Your task to perform on an android device: Show me popular games on the Play Store Image 0: 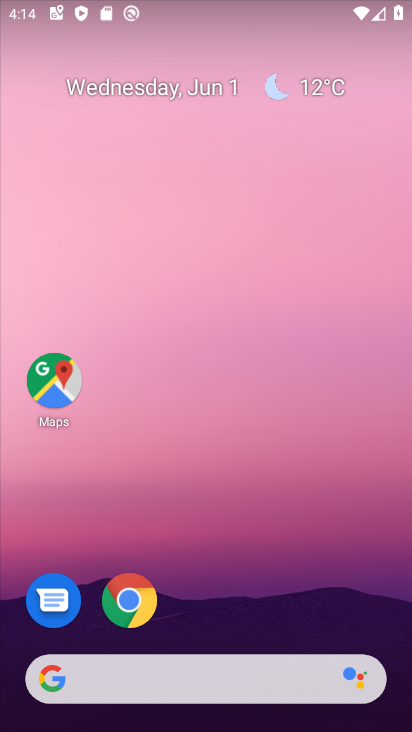
Step 0: drag from (390, 630) to (343, 150)
Your task to perform on an android device: Show me popular games on the Play Store Image 1: 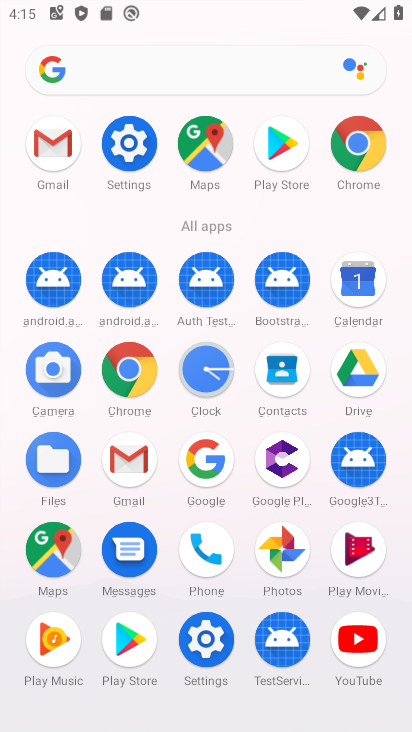
Step 1: click (133, 638)
Your task to perform on an android device: Show me popular games on the Play Store Image 2: 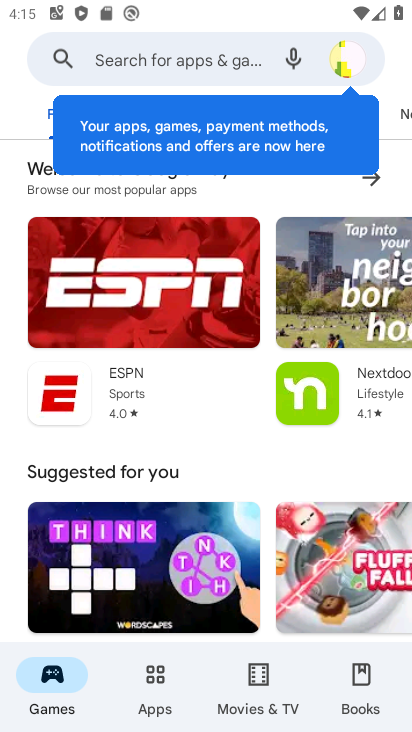
Step 2: drag from (268, 577) to (247, 139)
Your task to perform on an android device: Show me popular games on the Play Store Image 3: 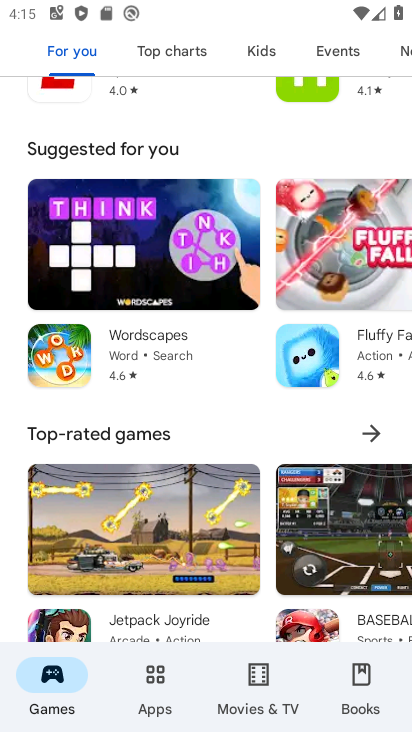
Step 3: click (246, 169)
Your task to perform on an android device: Show me popular games on the Play Store Image 4: 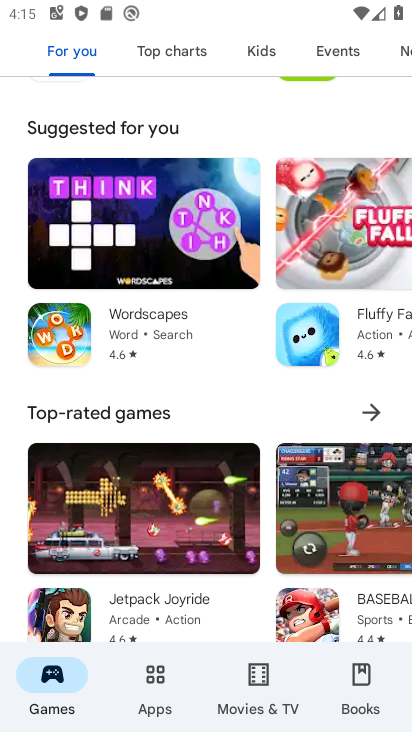
Step 4: drag from (269, 512) to (232, 97)
Your task to perform on an android device: Show me popular games on the Play Store Image 5: 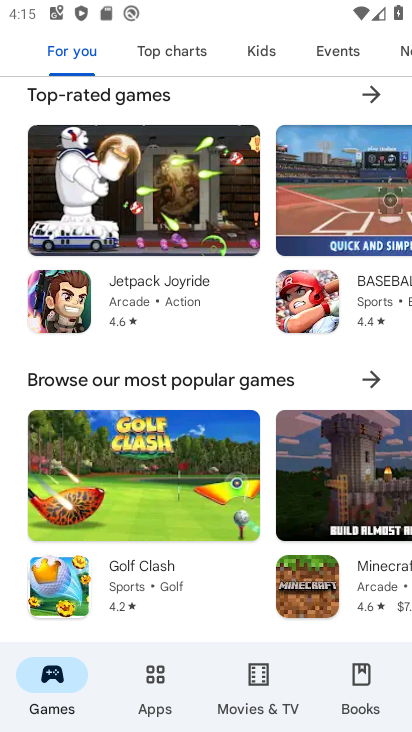
Step 5: click (375, 380)
Your task to perform on an android device: Show me popular games on the Play Store Image 6: 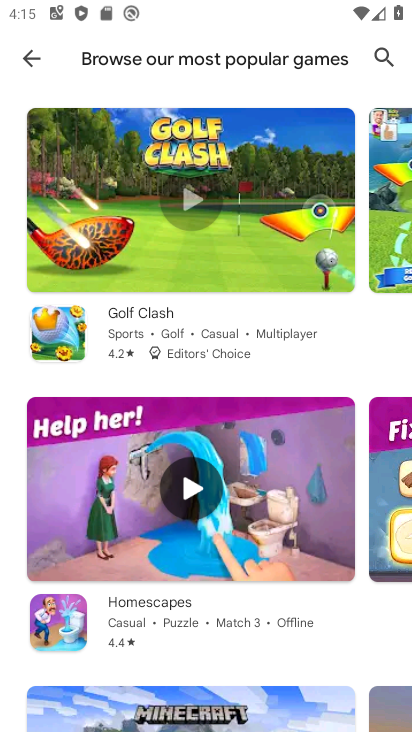
Step 6: task complete